Your task to perform on an android device: Open Maps and search for coffee Image 0: 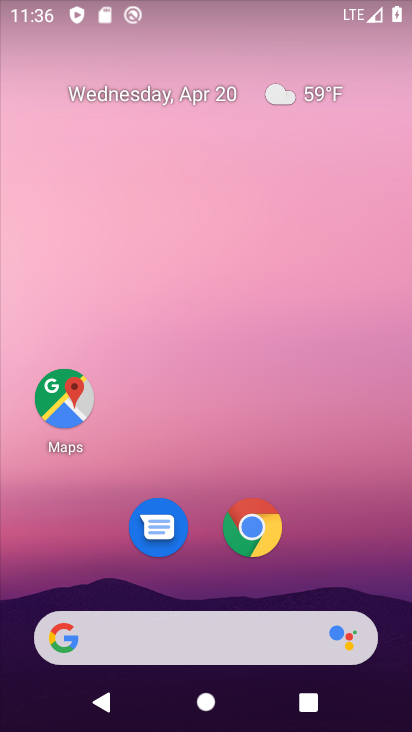
Step 0: drag from (367, 576) to (321, 131)
Your task to perform on an android device: Open Maps and search for coffee Image 1: 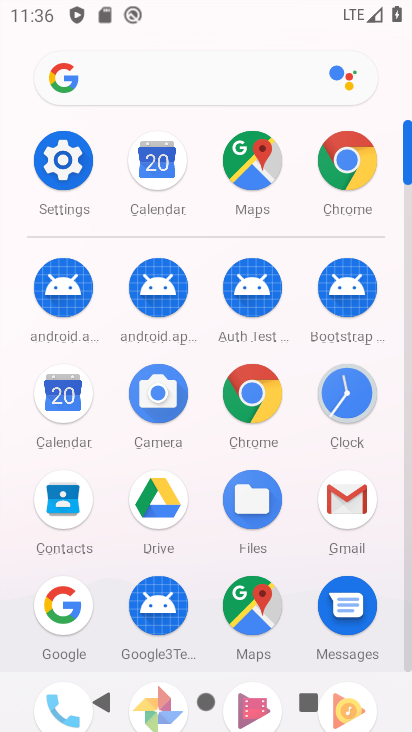
Step 1: click (254, 626)
Your task to perform on an android device: Open Maps and search for coffee Image 2: 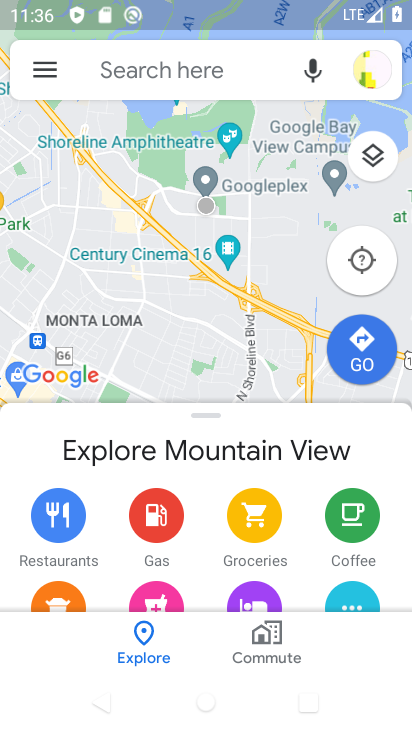
Step 2: click (170, 74)
Your task to perform on an android device: Open Maps and search for coffee Image 3: 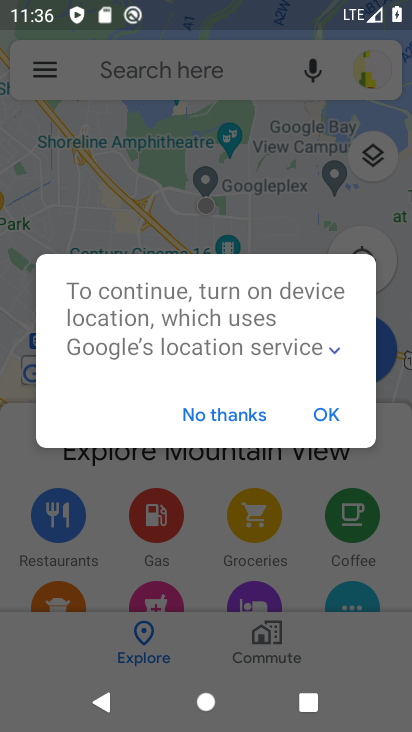
Step 3: click (318, 422)
Your task to perform on an android device: Open Maps and search for coffee Image 4: 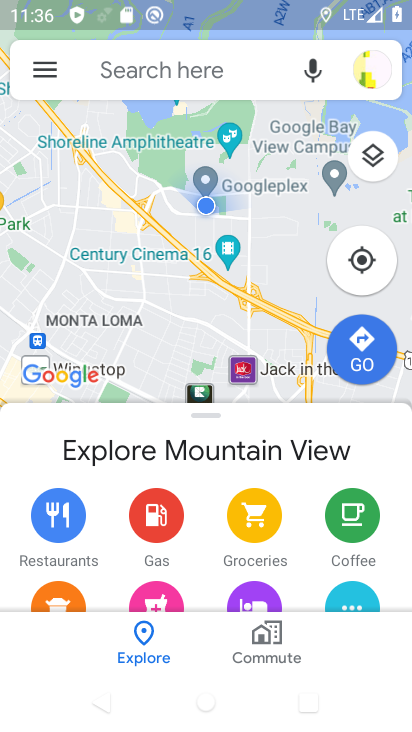
Step 4: click (155, 73)
Your task to perform on an android device: Open Maps and search for coffee Image 5: 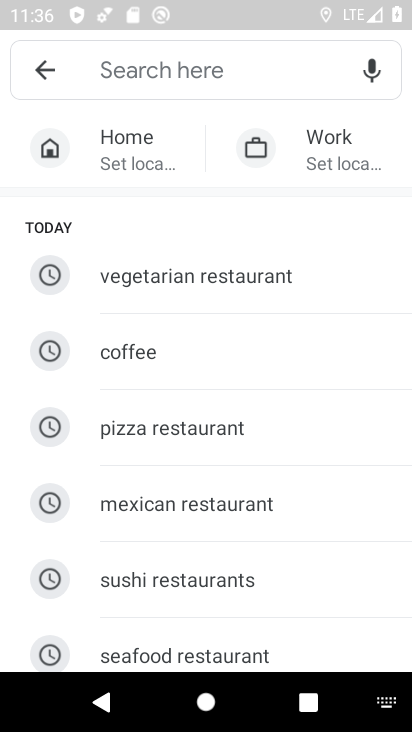
Step 5: type "coffee"
Your task to perform on an android device: Open Maps and search for coffee Image 6: 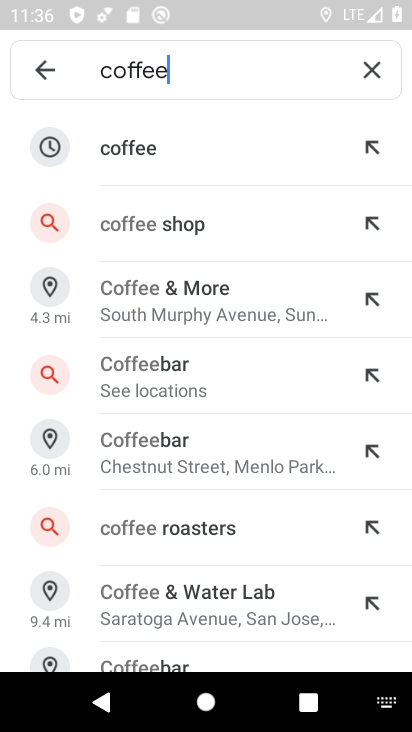
Step 6: click (148, 145)
Your task to perform on an android device: Open Maps and search for coffee Image 7: 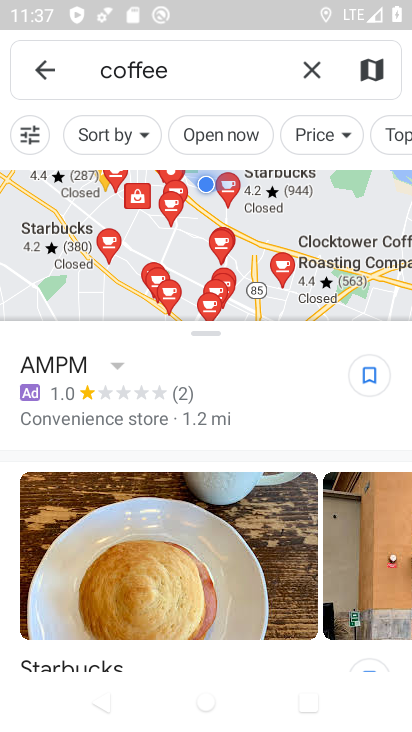
Step 7: task complete